Your task to perform on an android device: Open eBay Image 0: 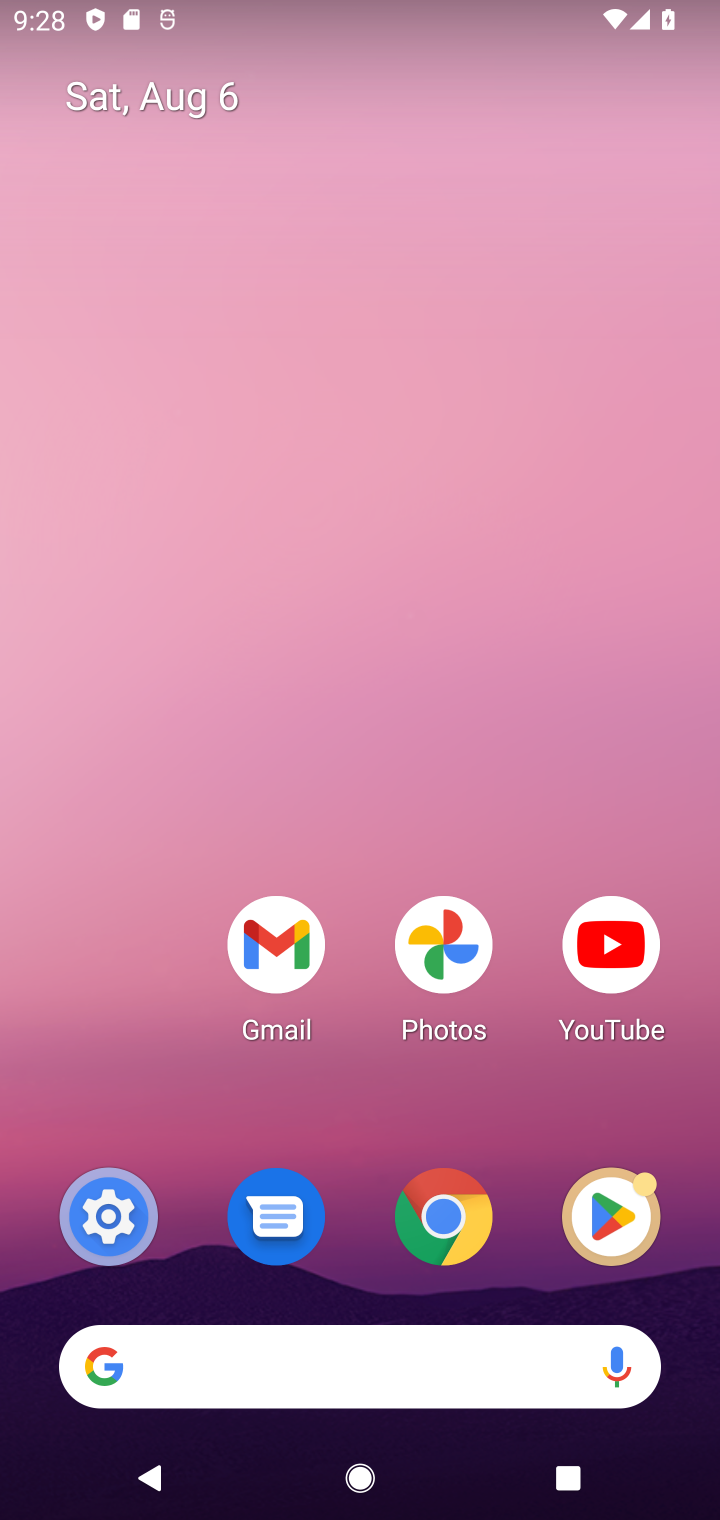
Step 0: drag from (363, 1002) to (372, 376)
Your task to perform on an android device: Open eBay Image 1: 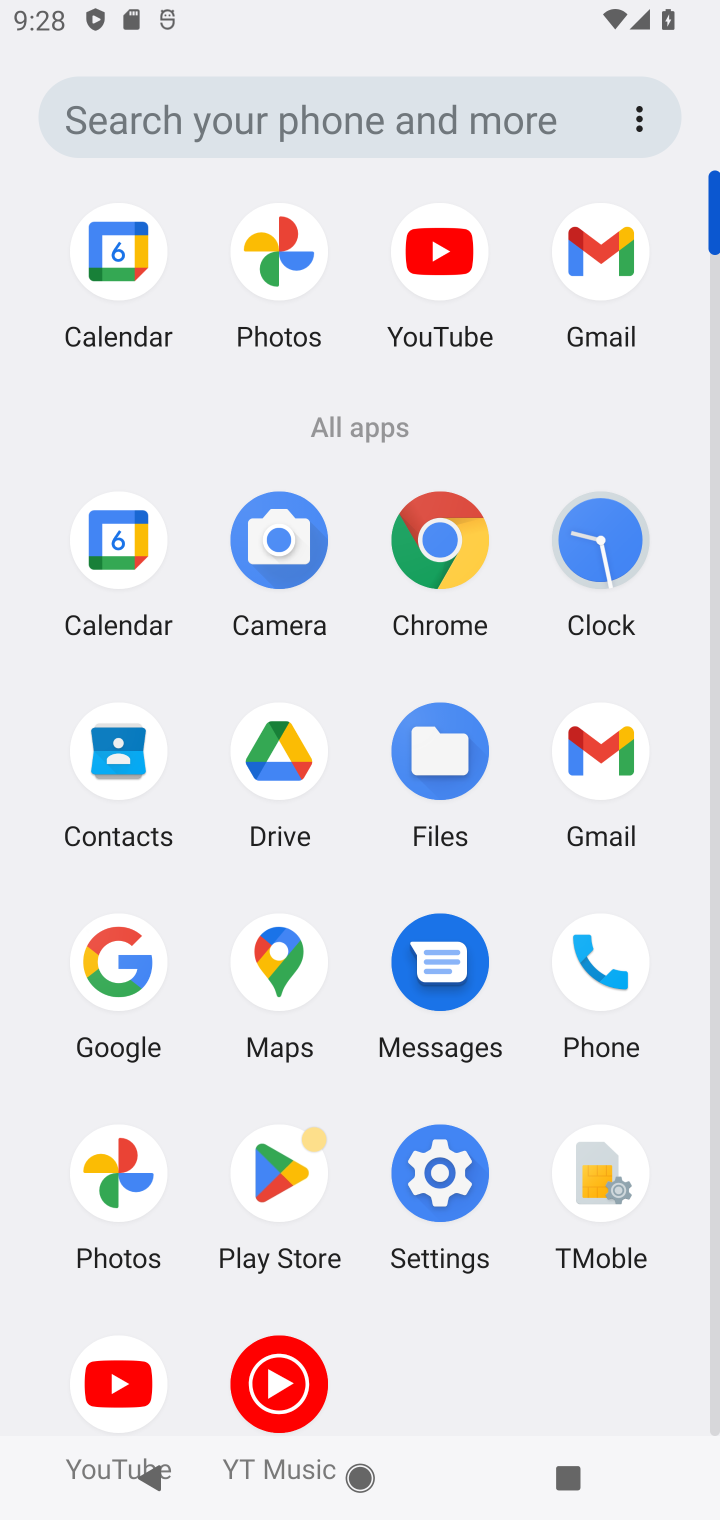
Step 1: click (123, 966)
Your task to perform on an android device: Open eBay Image 2: 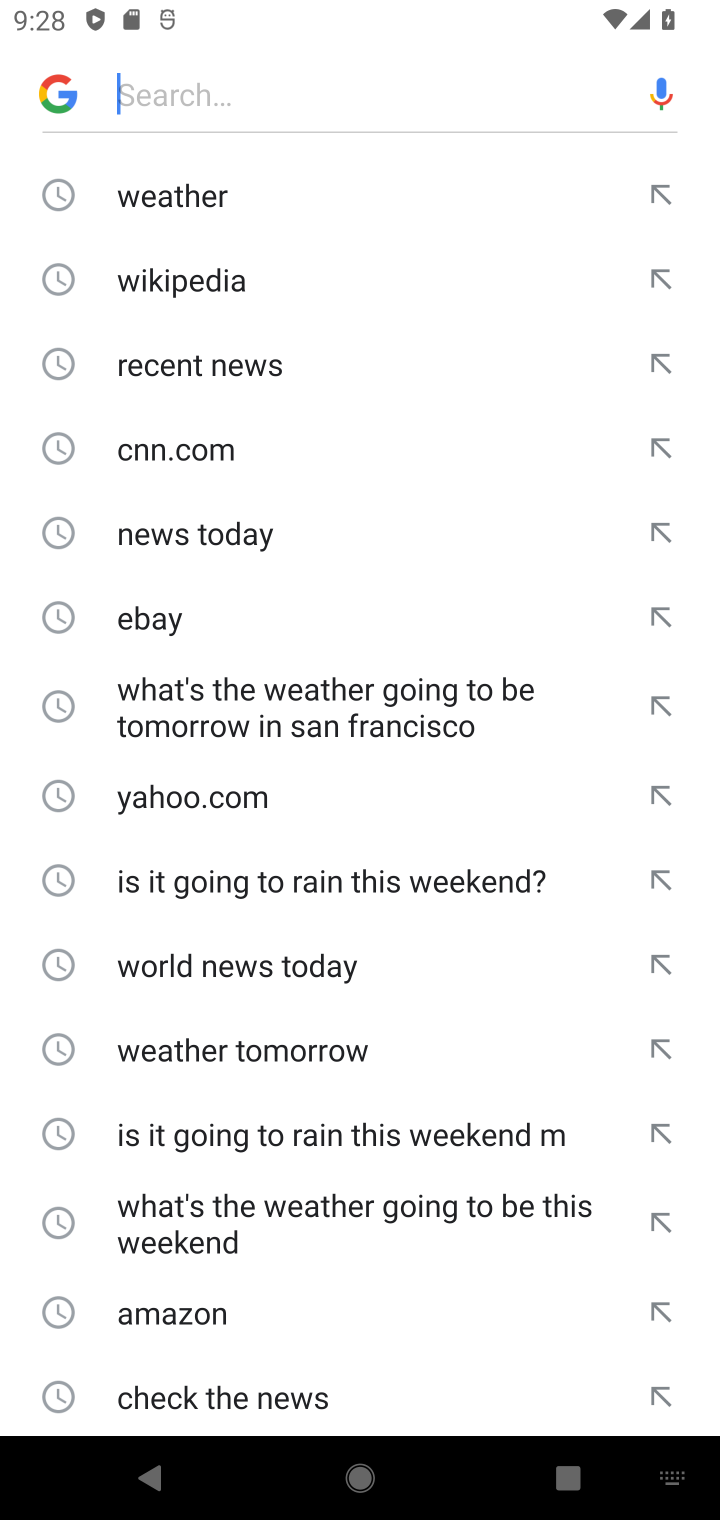
Step 2: click (256, 101)
Your task to perform on an android device: Open eBay Image 3: 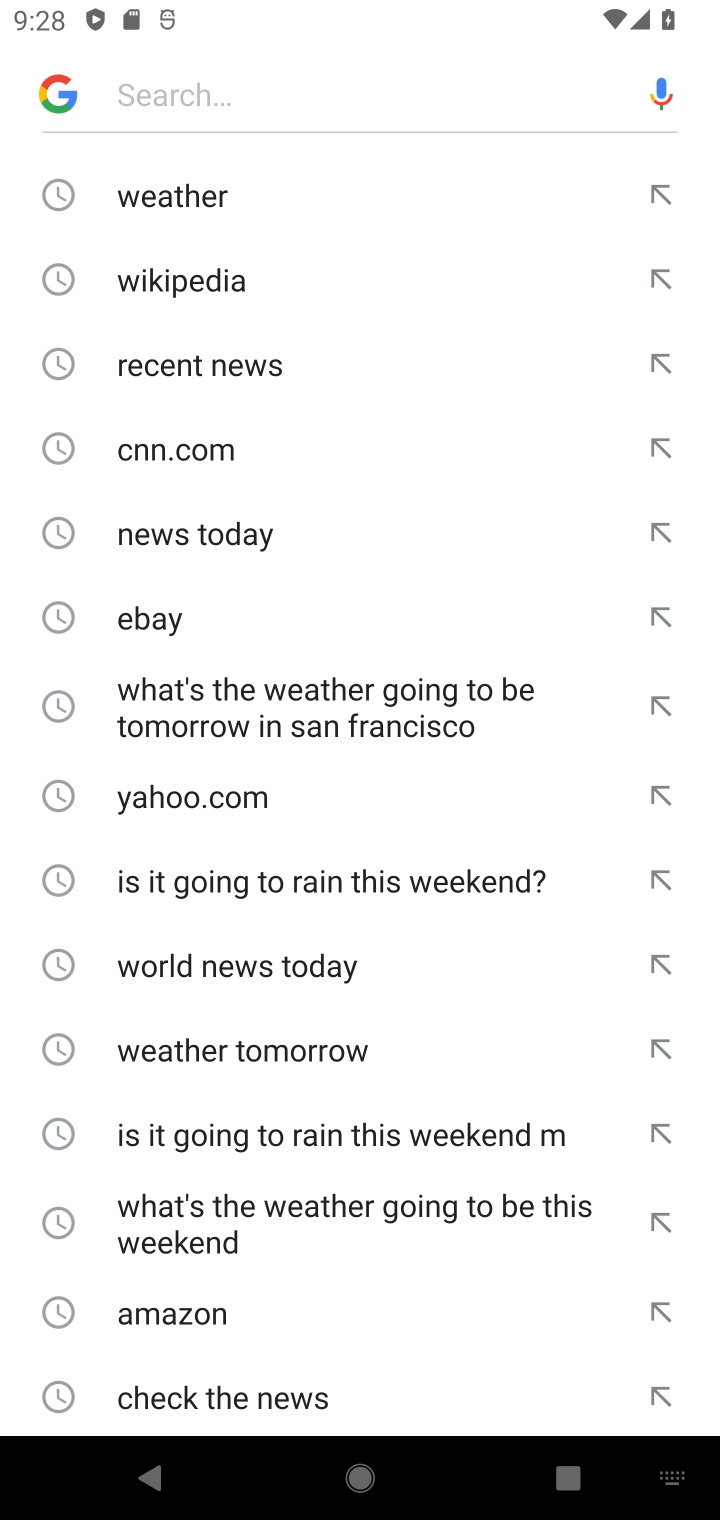
Step 3: click (207, 599)
Your task to perform on an android device: Open eBay Image 4: 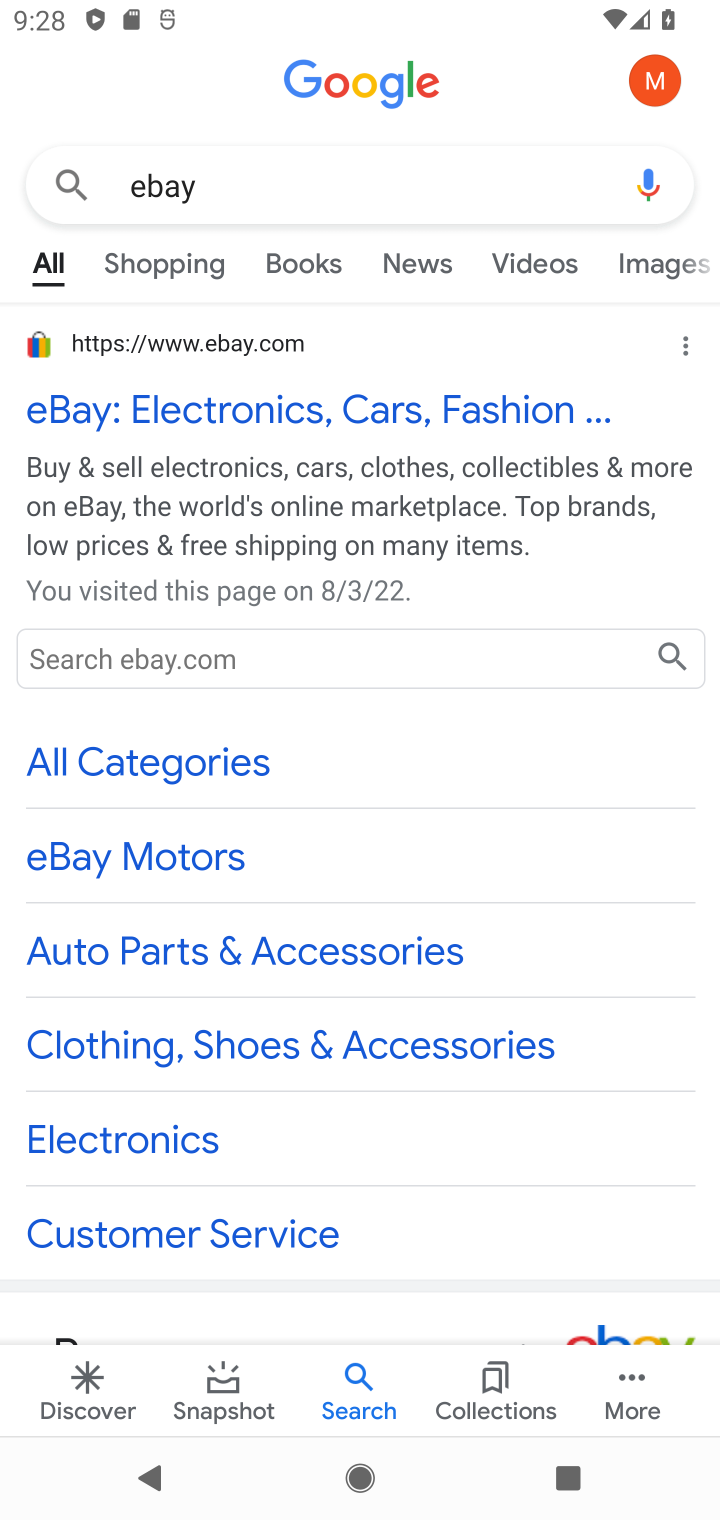
Step 4: click (297, 419)
Your task to perform on an android device: Open eBay Image 5: 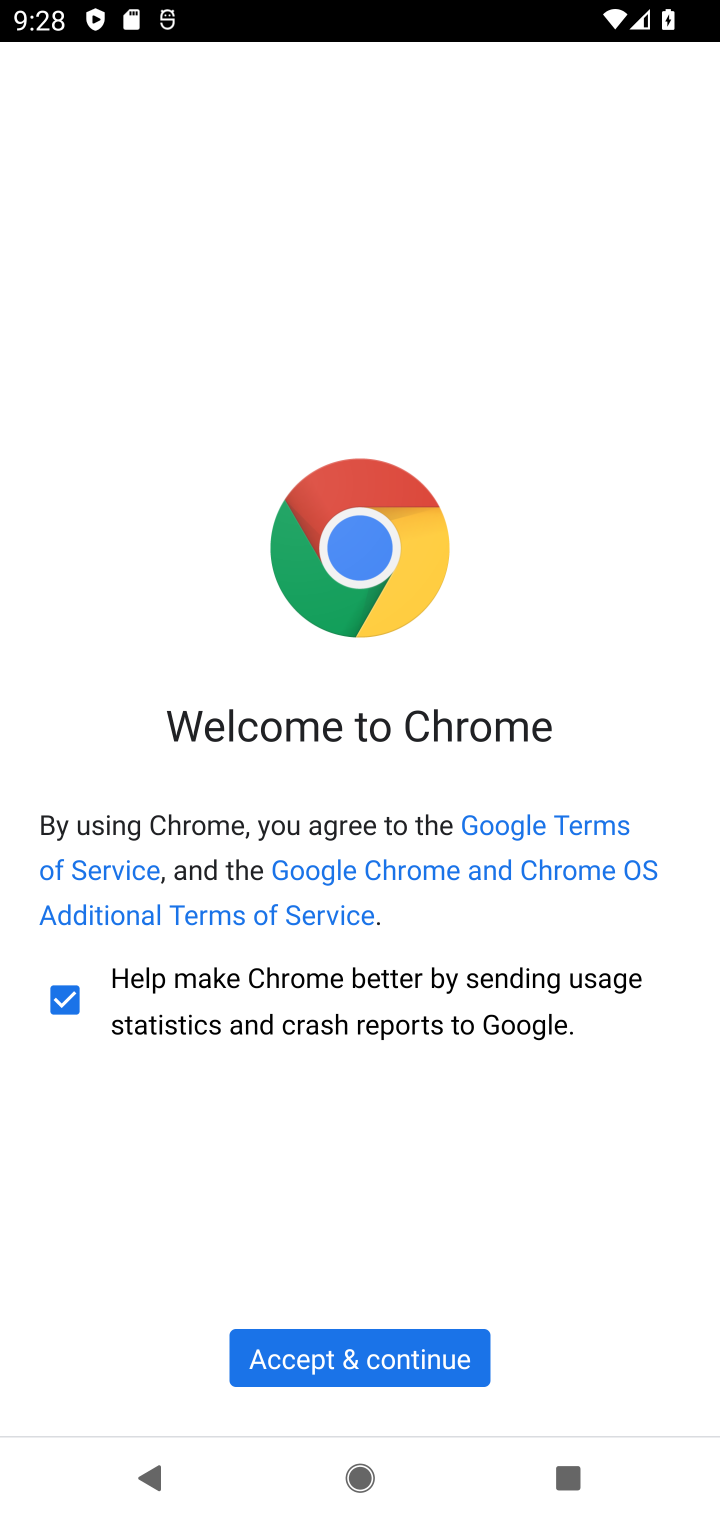
Step 5: click (460, 1363)
Your task to perform on an android device: Open eBay Image 6: 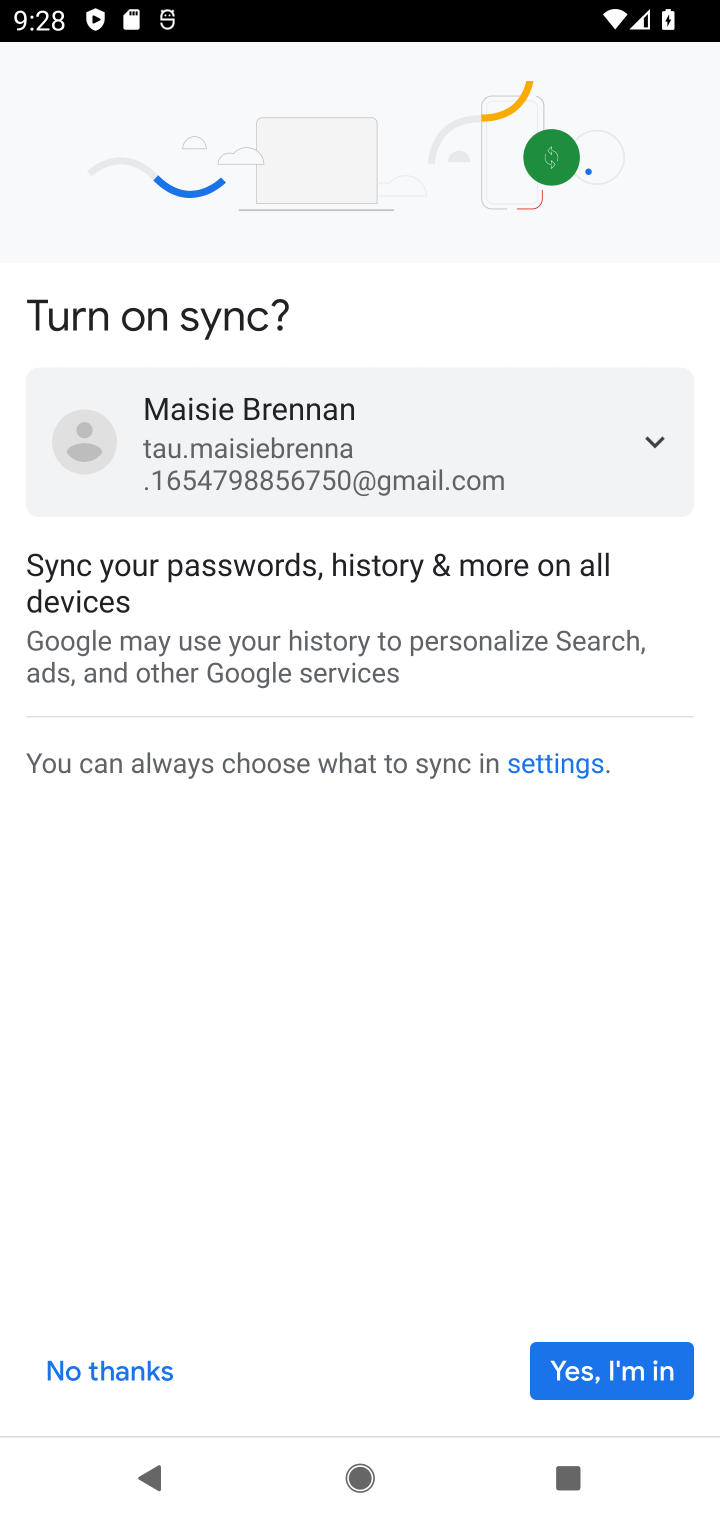
Step 6: click (680, 1362)
Your task to perform on an android device: Open eBay Image 7: 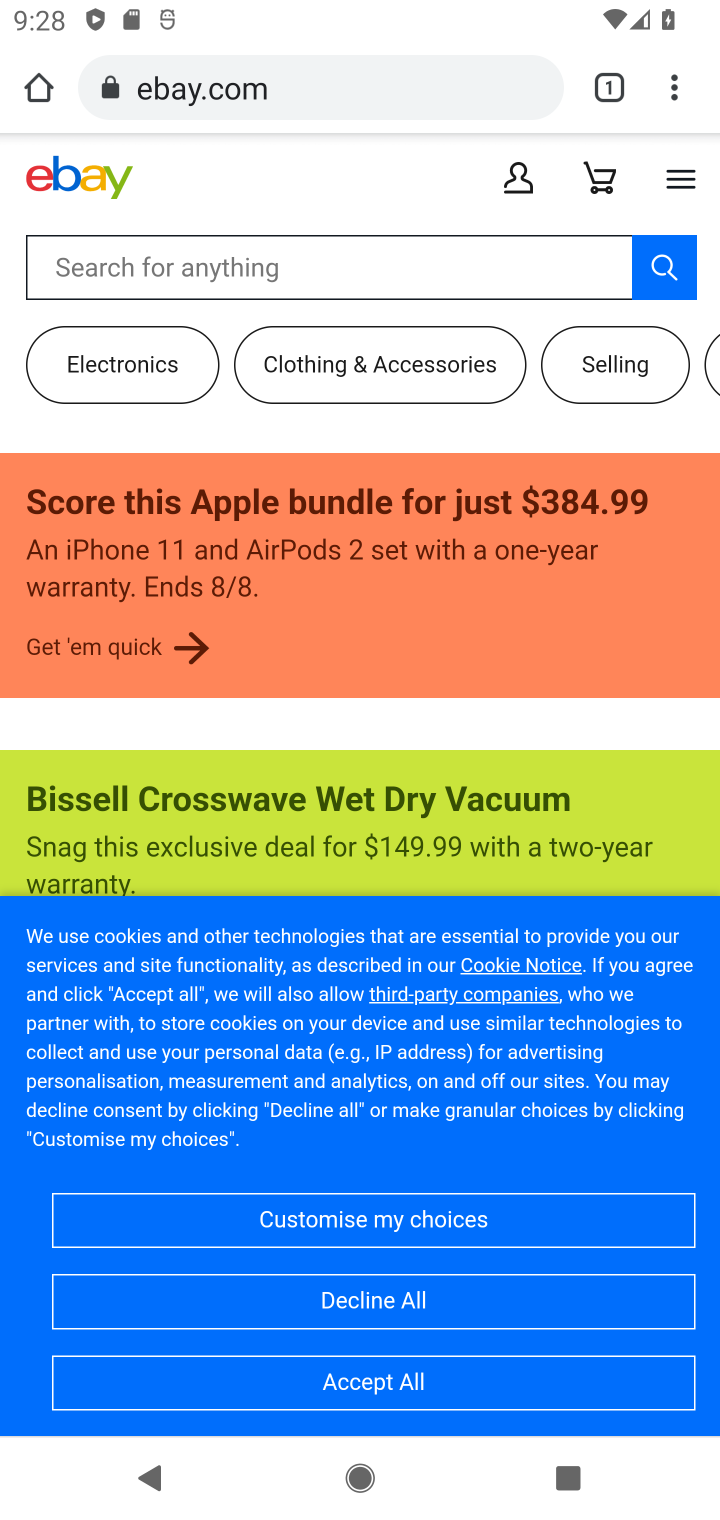
Step 7: task complete